Your task to perform on an android device: toggle airplane mode Image 0: 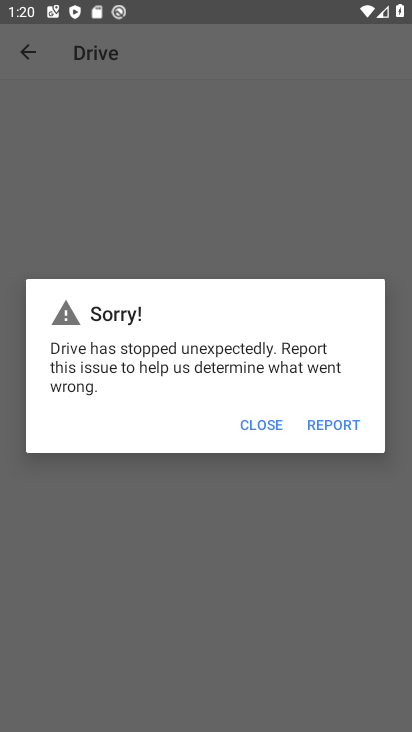
Step 0: drag from (361, 2) to (362, 499)
Your task to perform on an android device: toggle airplane mode Image 1: 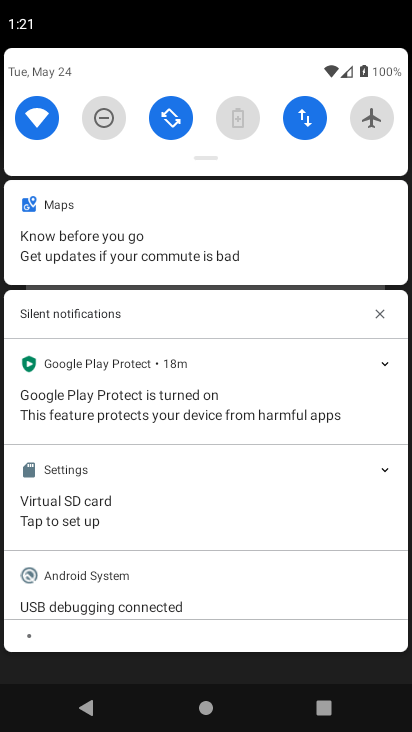
Step 1: click (378, 122)
Your task to perform on an android device: toggle airplane mode Image 2: 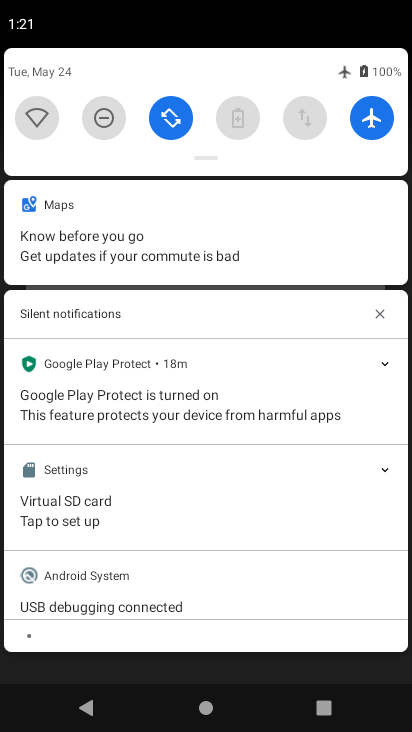
Step 2: task complete